Your task to perform on an android device: Open privacy settings Image 0: 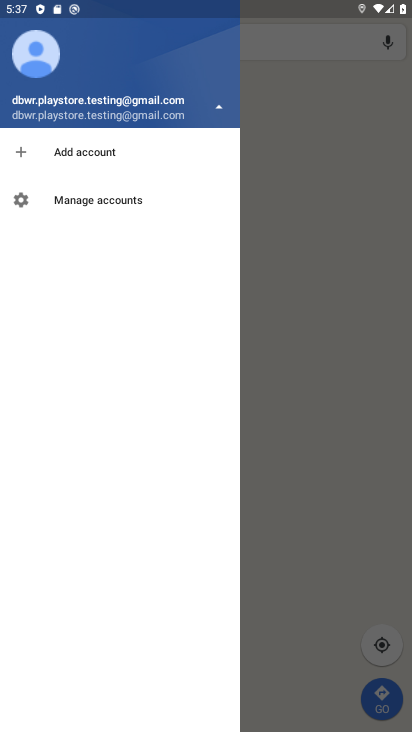
Step 0: press home button
Your task to perform on an android device: Open privacy settings Image 1: 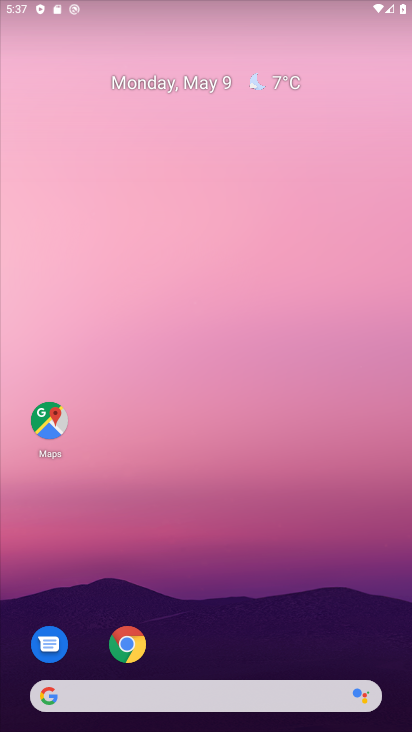
Step 1: drag from (253, 535) to (248, 76)
Your task to perform on an android device: Open privacy settings Image 2: 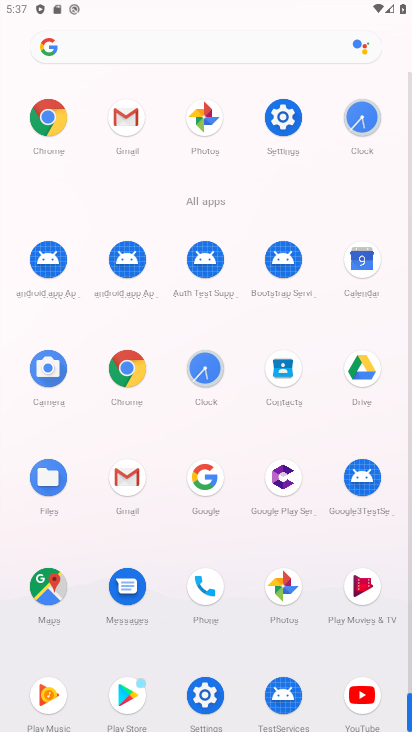
Step 2: click (276, 119)
Your task to perform on an android device: Open privacy settings Image 3: 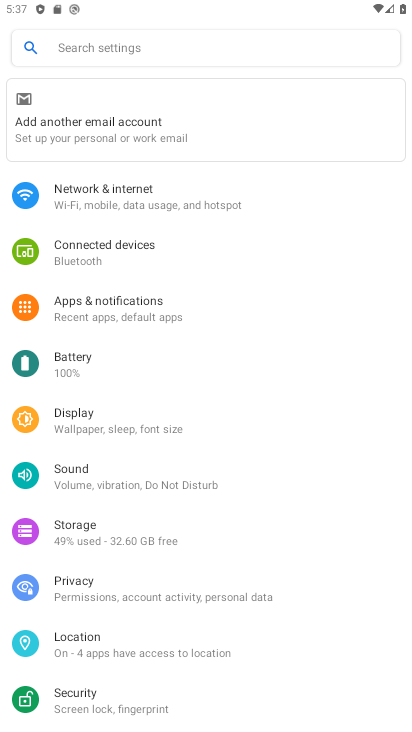
Step 3: click (115, 563)
Your task to perform on an android device: Open privacy settings Image 4: 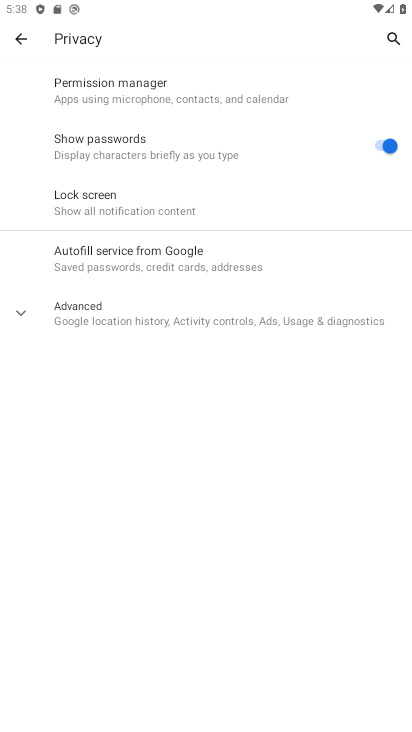
Step 4: task complete